Your task to perform on an android device: Open Chrome and go to settings Image 0: 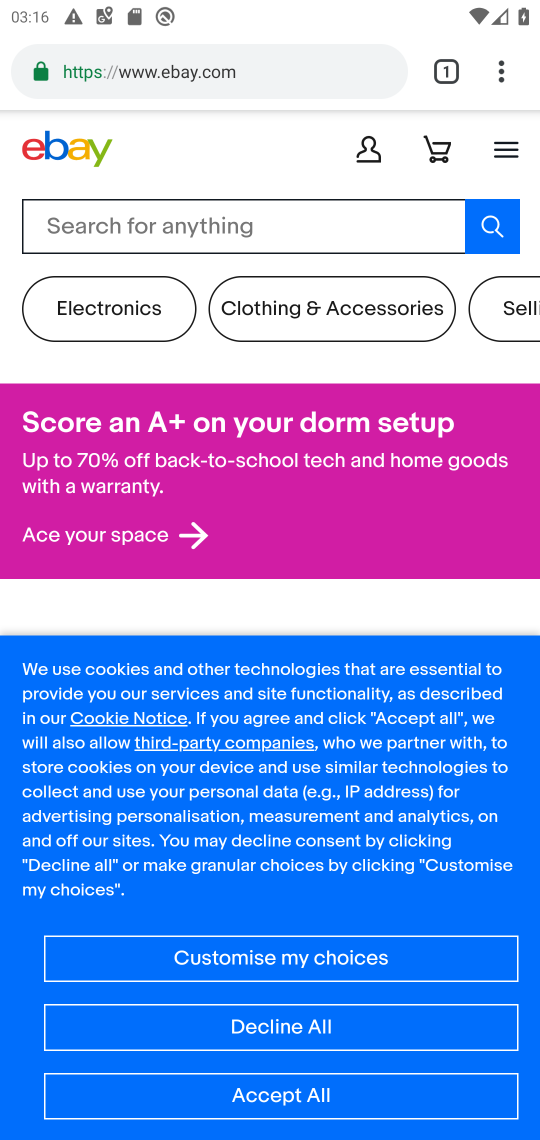
Step 0: drag from (506, 61) to (239, 850)
Your task to perform on an android device: Open Chrome and go to settings Image 1: 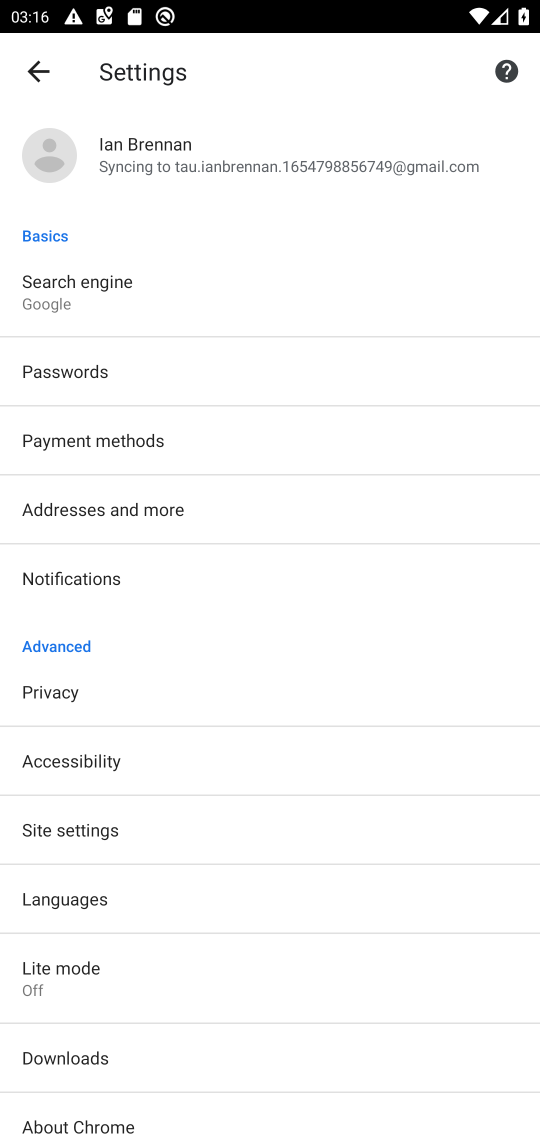
Step 1: task complete